Your task to perform on an android device: turn on javascript in the chrome app Image 0: 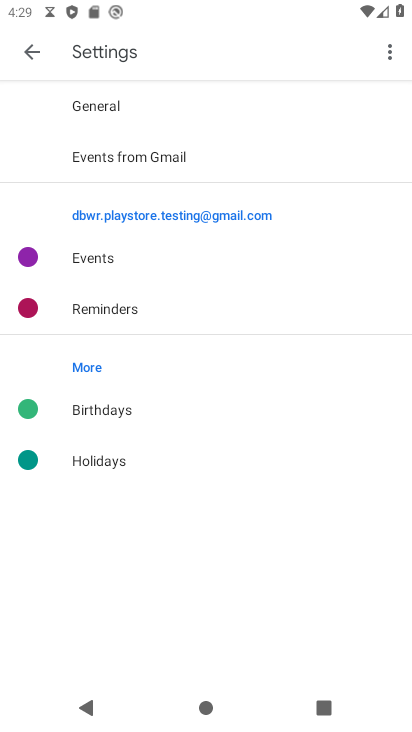
Step 0: press back button
Your task to perform on an android device: turn on javascript in the chrome app Image 1: 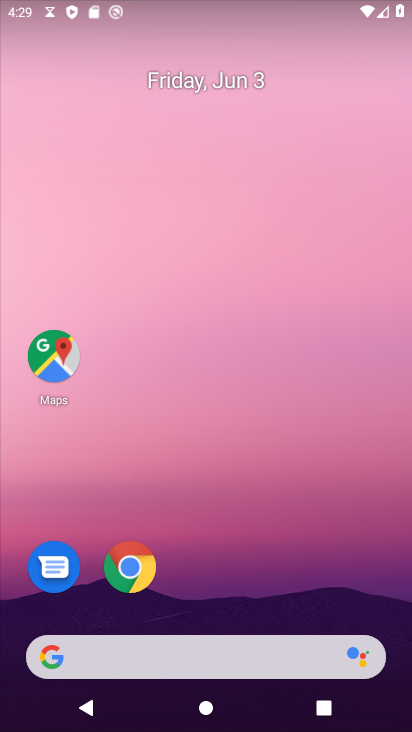
Step 1: click (128, 567)
Your task to perform on an android device: turn on javascript in the chrome app Image 2: 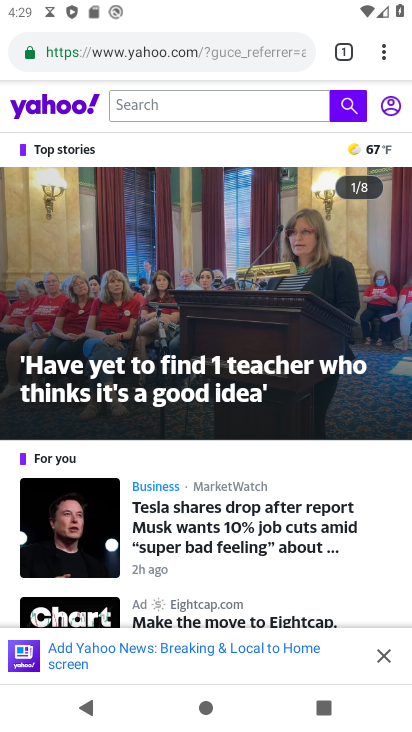
Step 2: click (384, 53)
Your task to perform on an android device: turn on javascript in the chrome app Image 3: 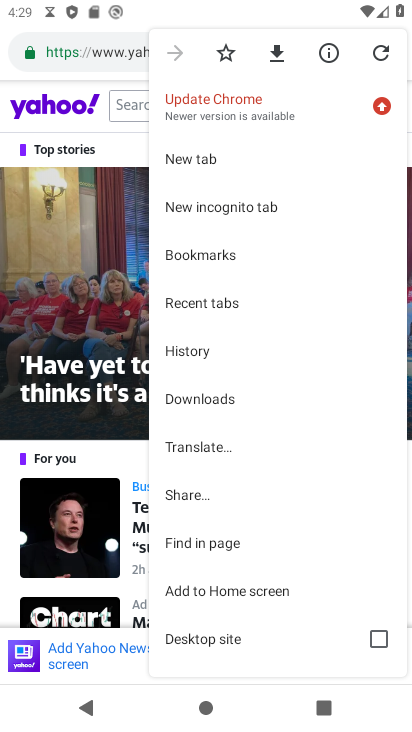
Step 3: drag from (189, 513) to (300, 278)
Your task to perform on an android device: turn on javascript in the chrome app Image 4: 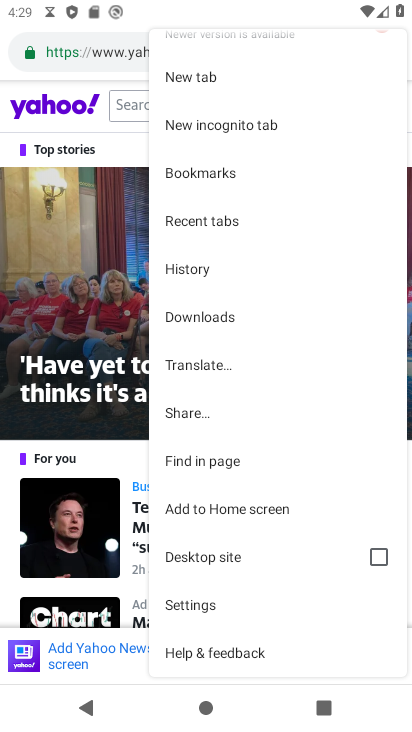
Step 4: click (204, 603)
Your task to perform on an android device: turn on javascript in the chrome app Image 5: 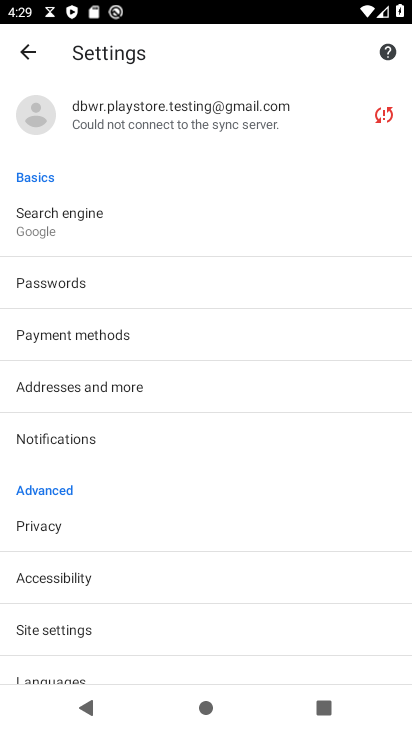
Step 5: click (68, 628)
Your task to perform on an android device: turn on javascript in the chrome app Image 6: 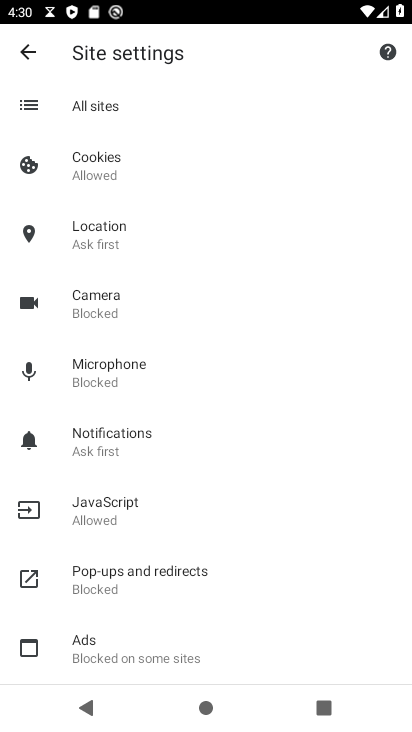
Step 6: click (107, 509)
Your task to perform on an android device: turn on javascript in the chrome app Image 7: 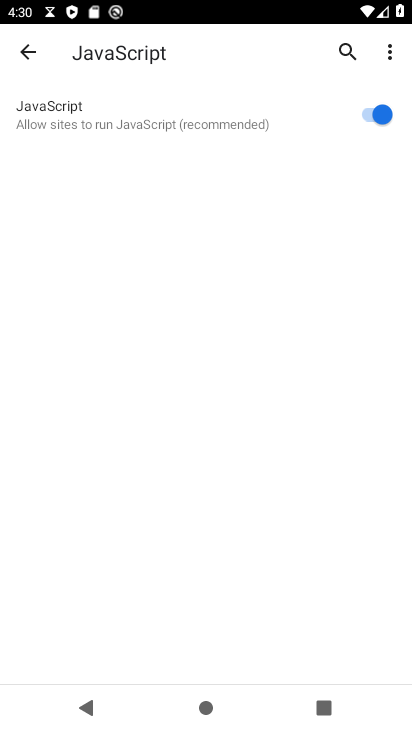
Step 7: task complete